Your task to perform on an android device: Go to Maps Image 0: 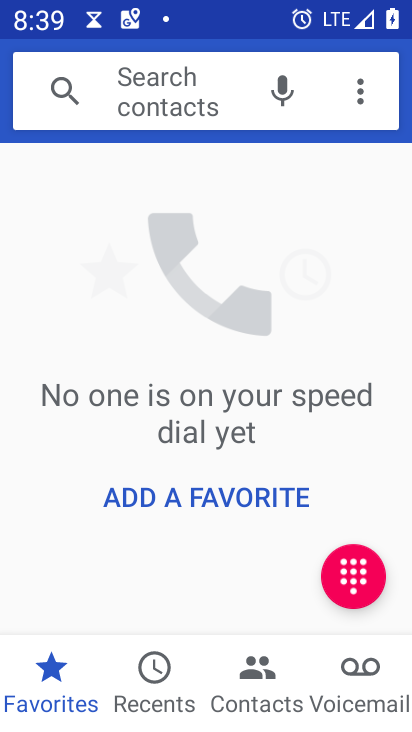
Step 0: press home button
Your task to perform on an android device: Go to Maps Image 1: 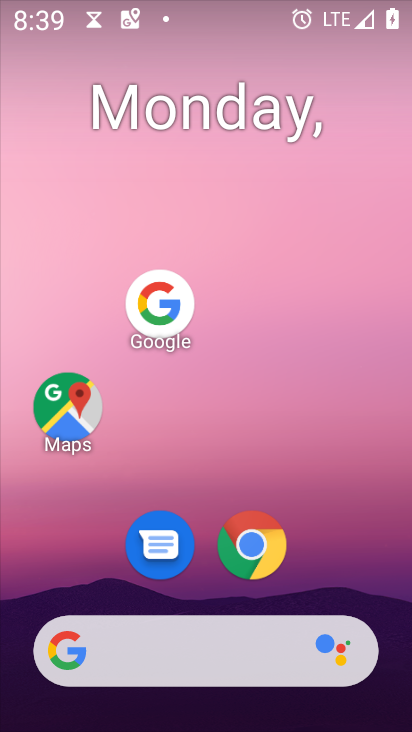
Step 1: click (71, 426)
Your task to perform on an android device: Go to Maps Image 2: 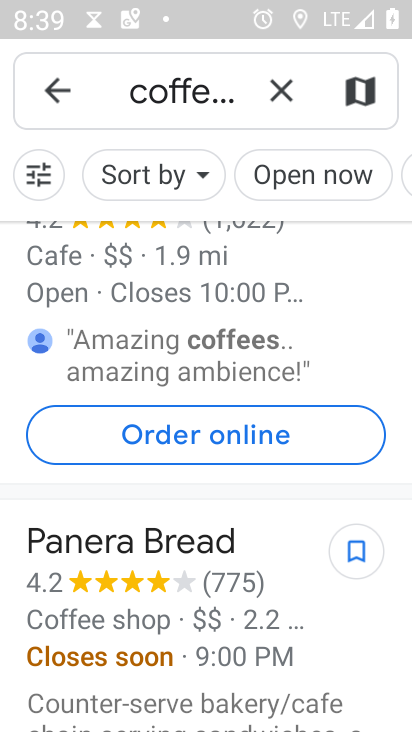
Step 2: click (61, 89)
Your task to perform on an android device: Go to Maps Image 3: 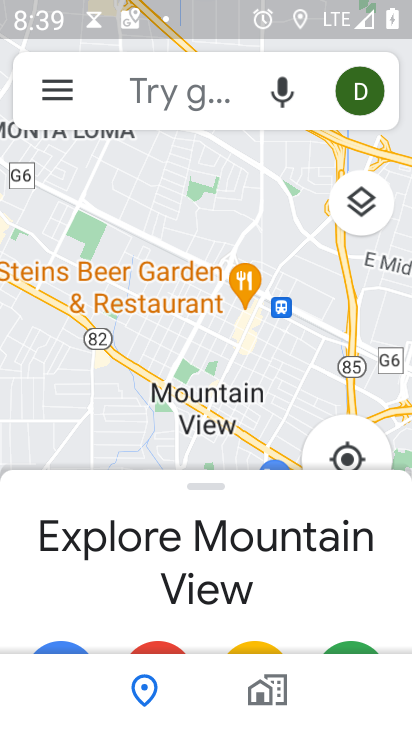
Step 3: task complete